Your task to perform on an android device: Is it going to rain today? Image 0: 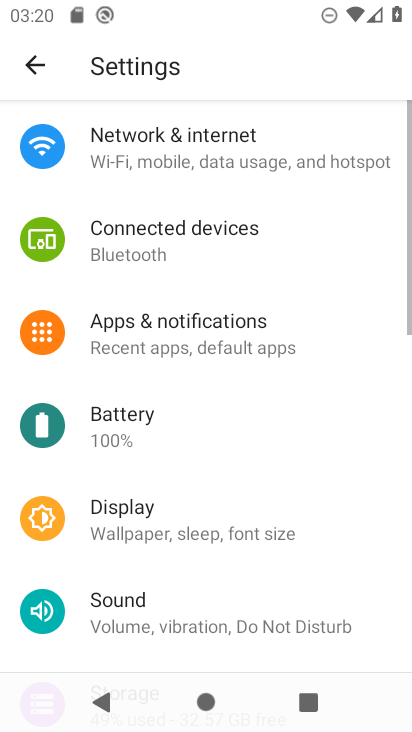
Step 0: press home button
Your task to perform on an android device: Is it going to rain today? Image 1: 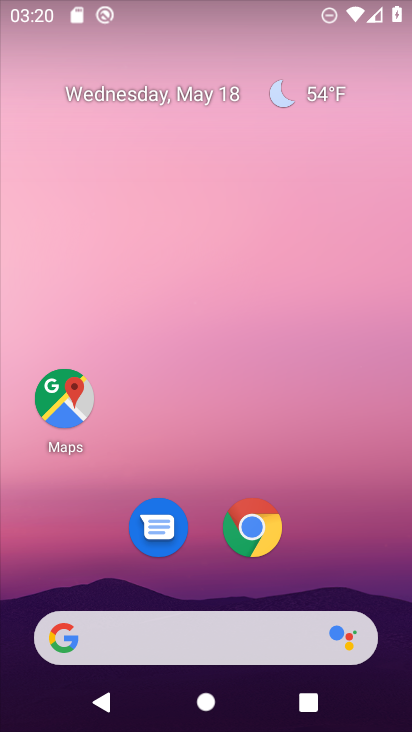
Step 1: drag from (204, 626) to (157, 10)
Your task to perform on an android device: Is it going to rain today? Image 2: 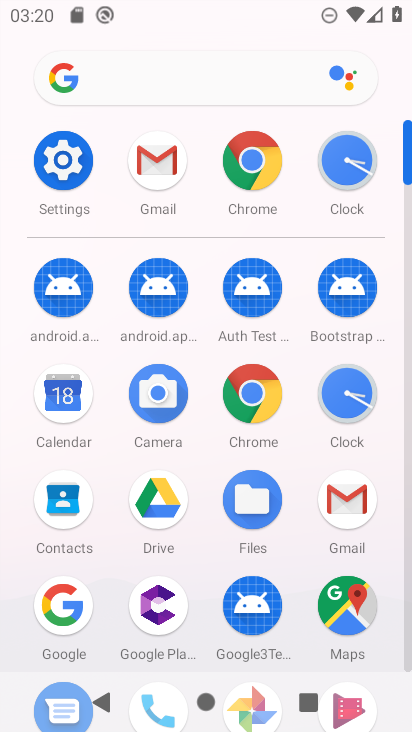
Step 2: click (49, 617)
Your task to perform on an android device: Is it going to rain today? Image 3: 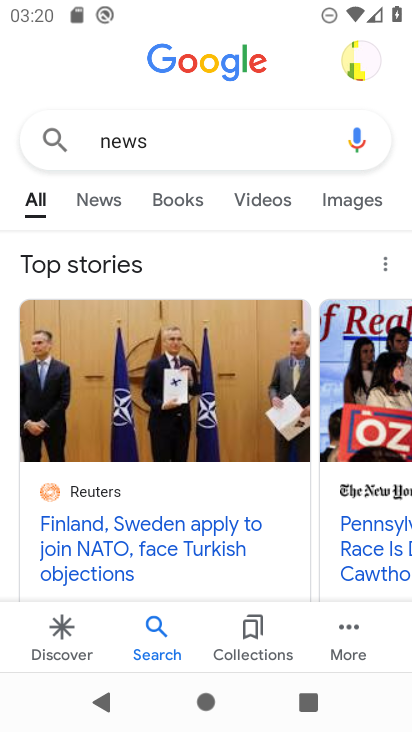
Step 3: click (258, 156)
Your task to perform on an android device: Is it going to rain today? Image 4: 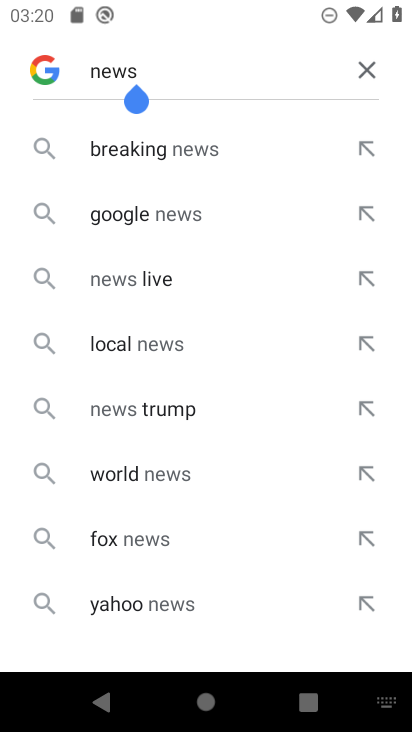
Step 4: click (357, 70)
Your task to perform on an android device: Is it going to rain today? Image 5: 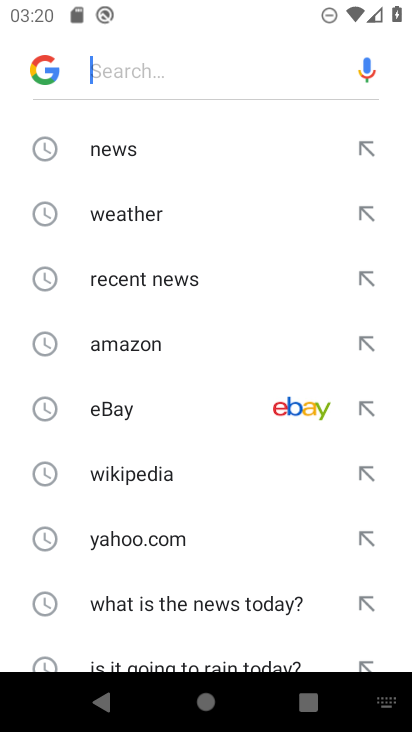
Step 5: click (121, 233)
Your task to perform on an android device: Is it going to rain today? Image 6: 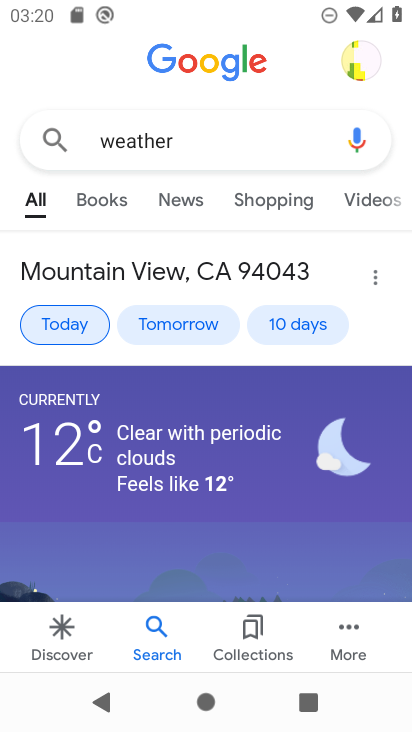
Step 6: task complete